Your task to perform on an android device: Open the stopwatch Image 0: 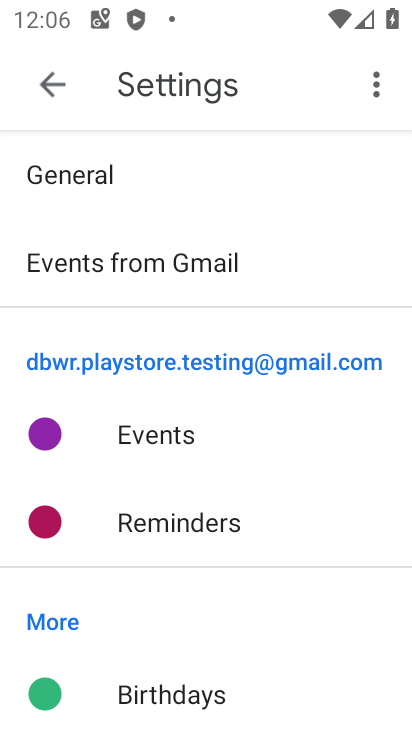
Step 0: press back button
Your task to perform on an android device: Open the stopwatch Image 1: 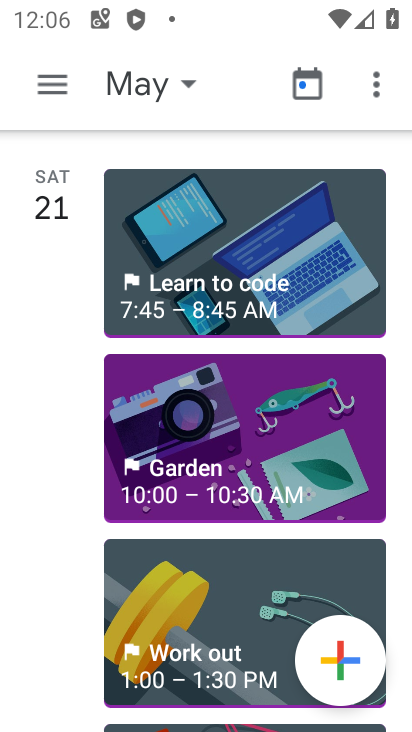
Step 1: press back button
Your task to perform on an android device: Open the stopwatch Image 2: 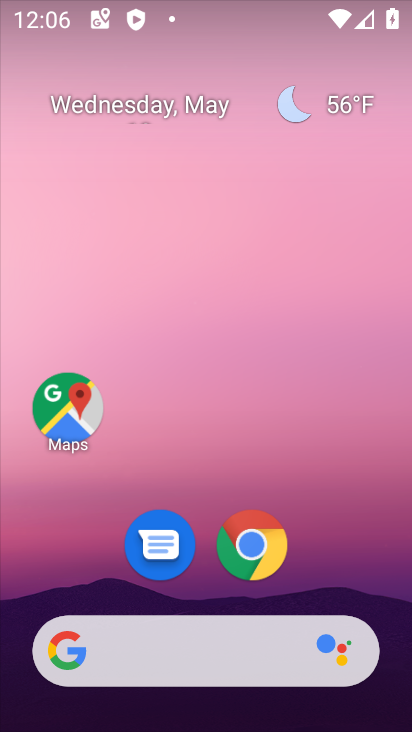
Step 2: drag from (329, 552) to (209, 123)
Your task to perform on an android device: Open the stopwatch Image 3: 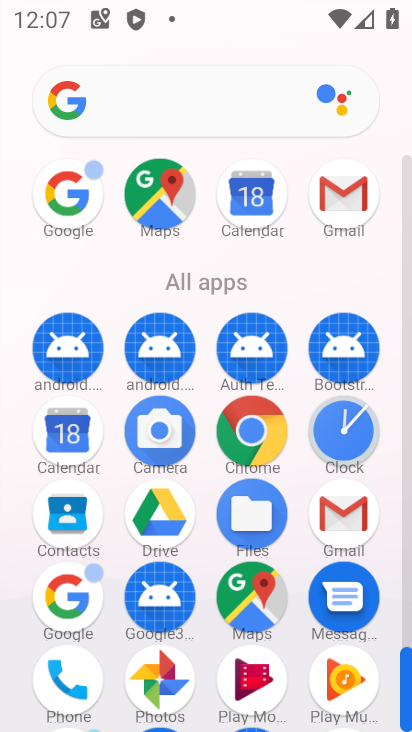
Step 3: click (344, 430)
Your task to perform on an android device: Open the stopwatch Image 4: 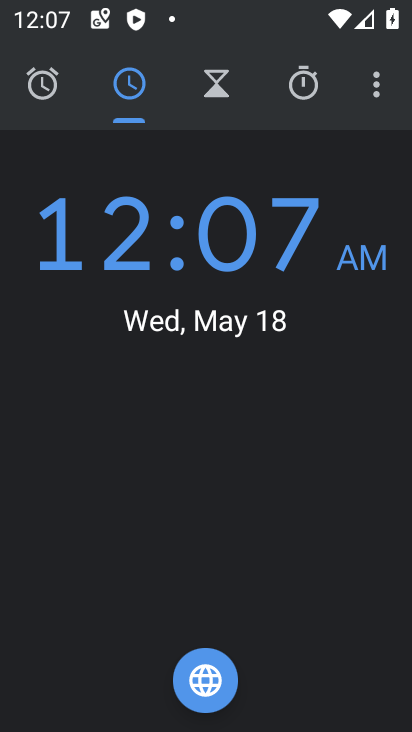
Step 4: click (305, 88)
Your task to perform on an android device: Open the stopwatch Image 5: 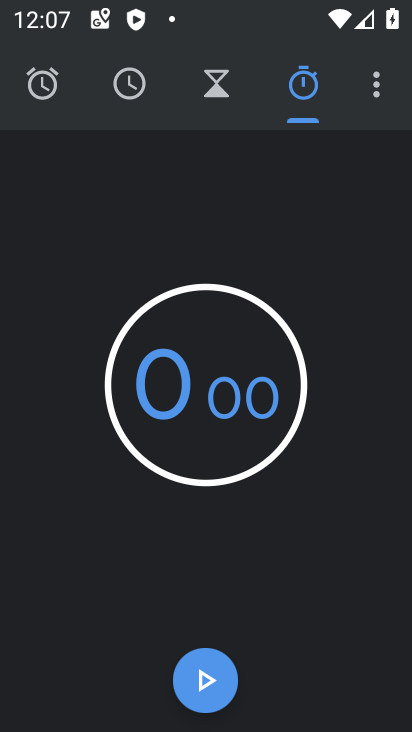
Step 5: task complete